Your task to perform on an android device: open device folders in google photos Image 0: 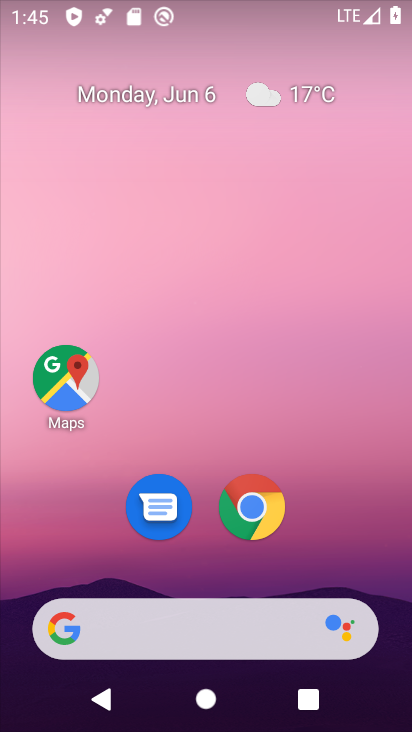
Step 0: drag from (350, 561) to (226, 194)
Your task to perform on an android device: open device folders in google photos Image 1: 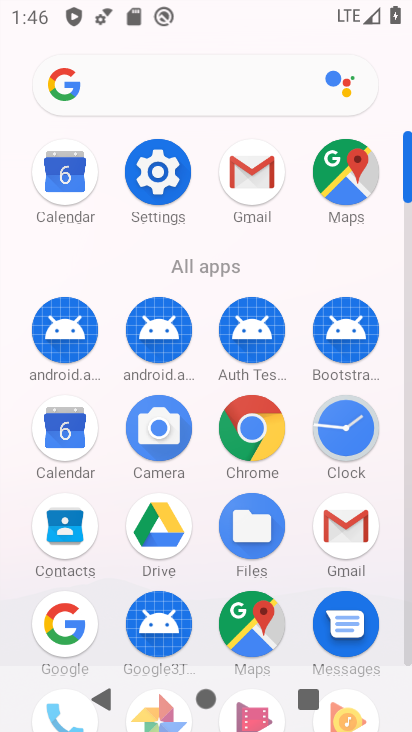
Step 1: click (407, 664)
Your task to perform on an android device: open device folders in google photos Image 2: 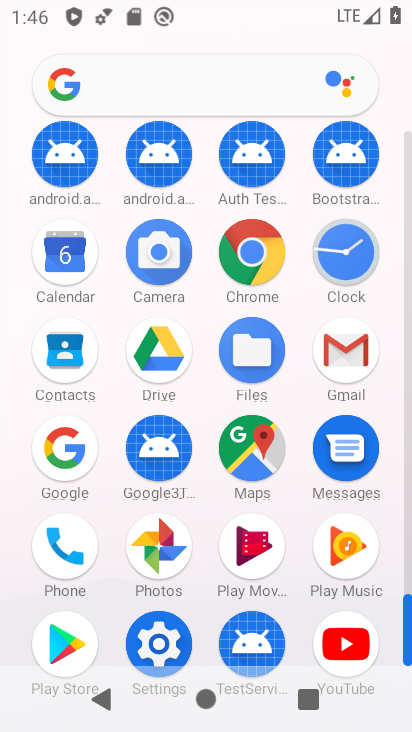
Step 2: click (147, 576)
Your task to perform on an android device: open device folders in google photos Image 3: 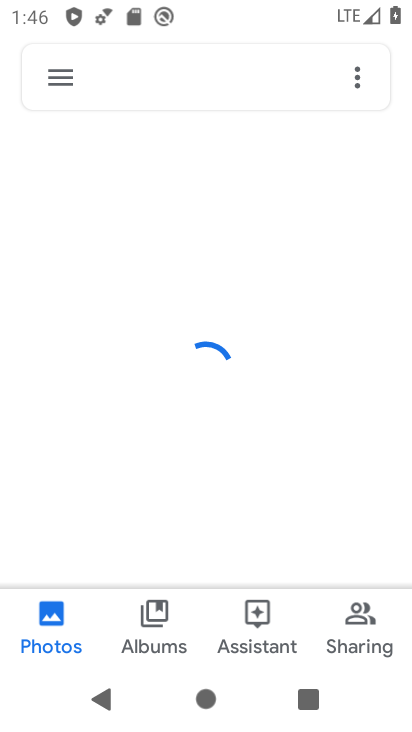
Step 3: click (66, 74)
Your task to perform on an android device: open device folders in google photos Image 4: 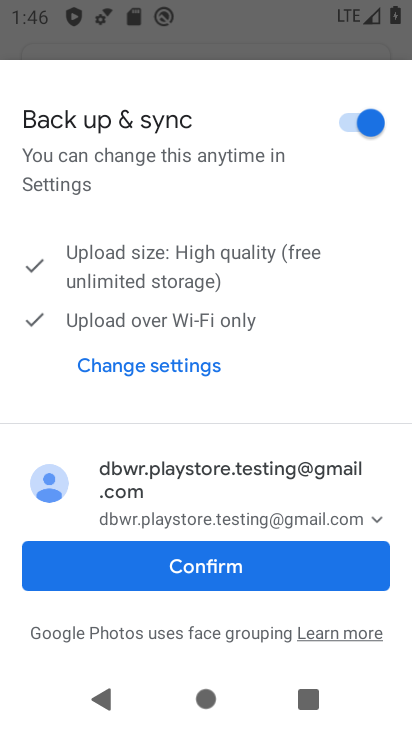
Step 4: click (249, 563)
Your task to perform on an android device: open device folders in google photos Image 5: 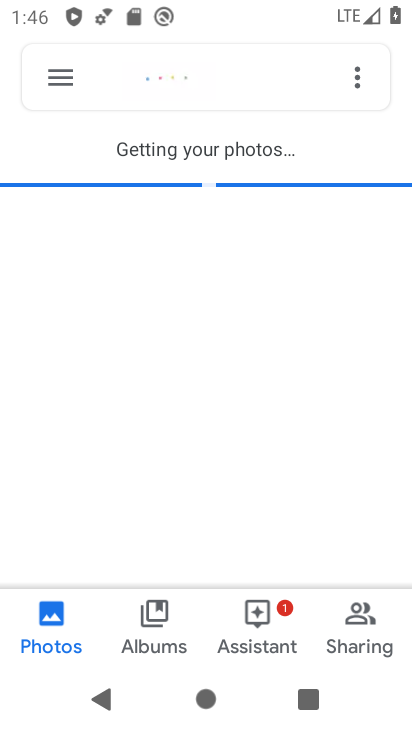
Step 5: click (52, 71)
Your task to perform on an android device: open device folders in google photos Image 6: 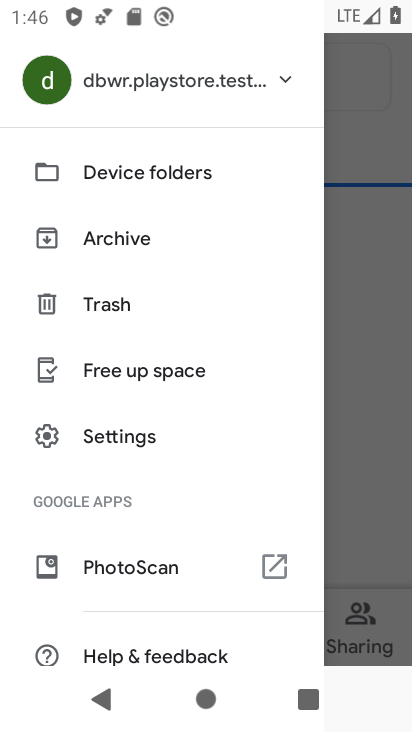
Step 6: click (96, 173)
Your task to perform on an android device: open device folders in google photos Image 7: 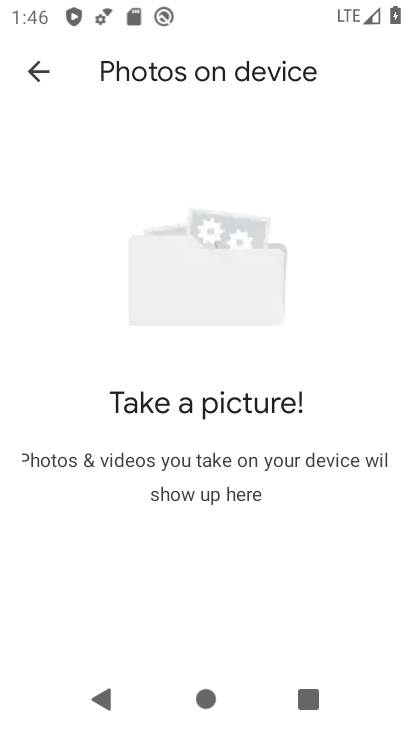
Step 7: task complete